Your task to perform on an android device: Open Google Chrome and click the shortcut for Amazon.com Image 0: 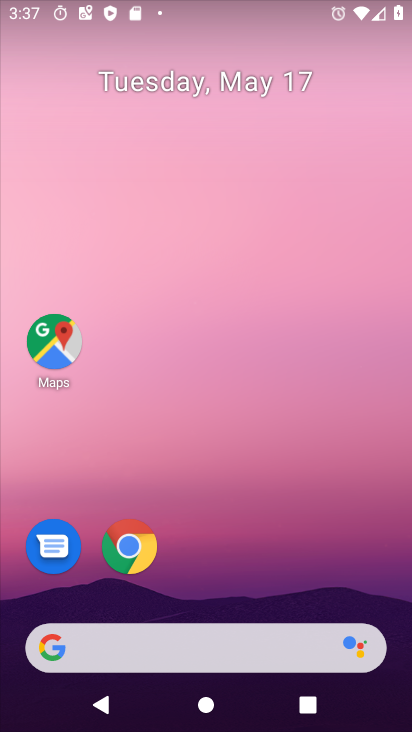
Step 0: drag from (271, 612) to (271, 322)
Your task to perform on an android device: Open Google Chrome and click the shortcut for Amazon.com Image 1: 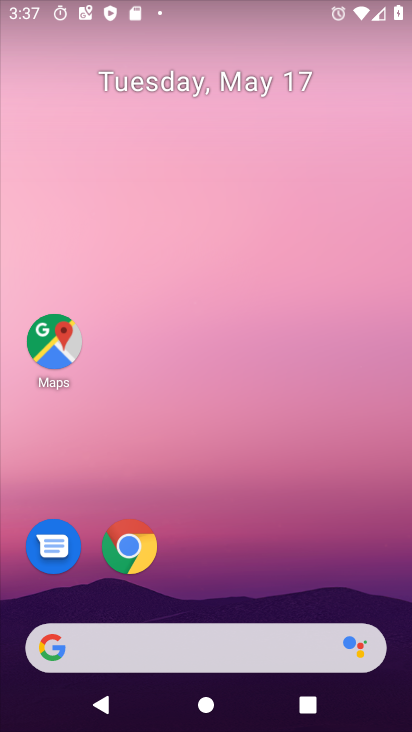
Step 1: click (135, 544)
Your task to perform on an android device: Open Google Chrome and click the shortcut for Amazon.com Image 2: 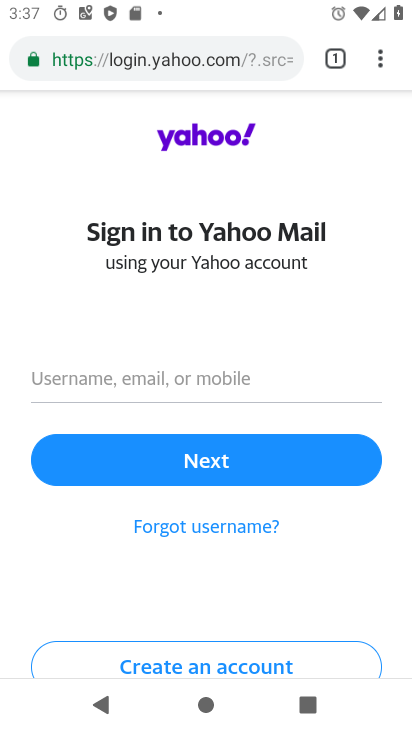
Step 2: click (246, 62)
Your task to perform on an android device: Open Google Chrome and click the shortcut for Amazon.com Image 3: 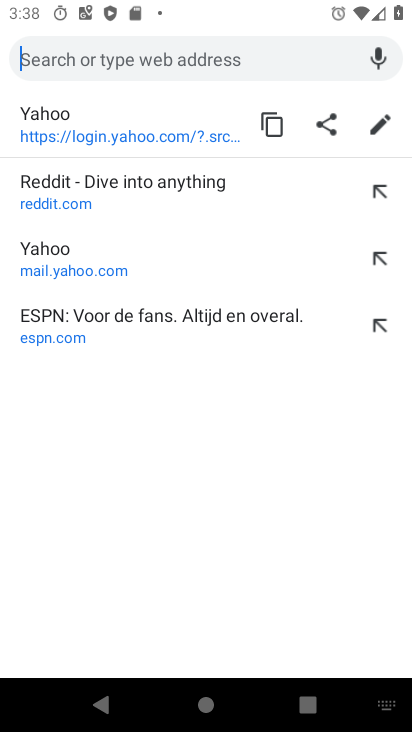
Step 3: type "amazom"
Your task to perform on an android device: Open Google Chrome and click the shortcut for Amazon.com Image 4: 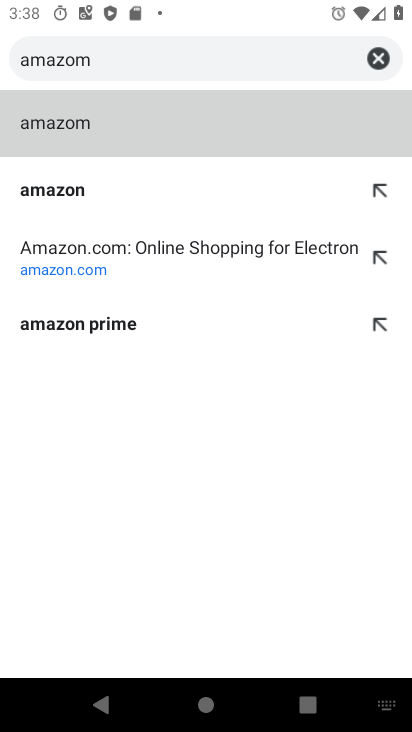
Step 4: click (272, 267)
Your task to perform on an android device: Open Google Chrome and click the shortcut for Amazon.com Image 5: 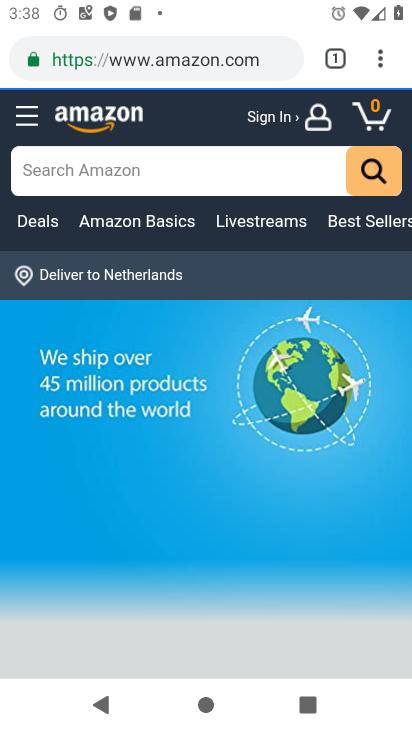
Step 5: task complete